Your task to perform on an android device: Open Android settings Image 0: 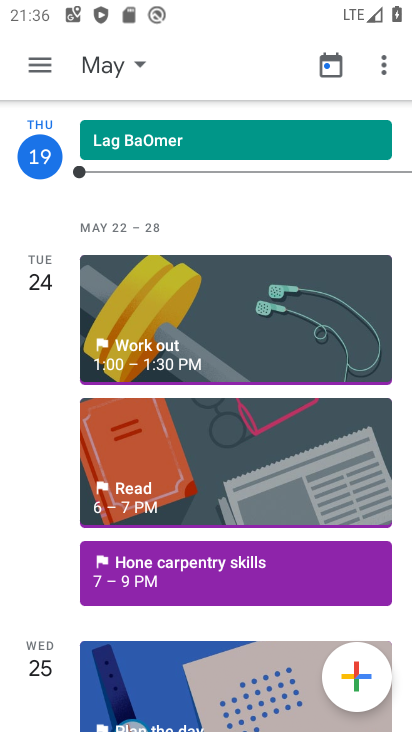
Step 0: press home button
Your task to perform on an android device: Open Android settings Image 1: 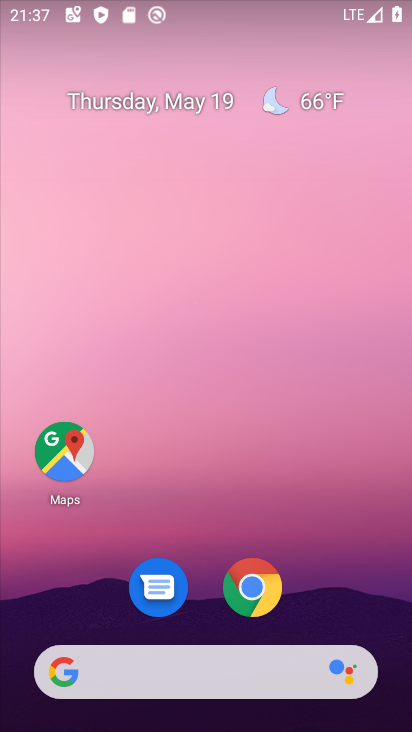
Step 1: drag from (299, 691) to (282, 165)
Your task to perform on an android device: Open Android settings Image 2: 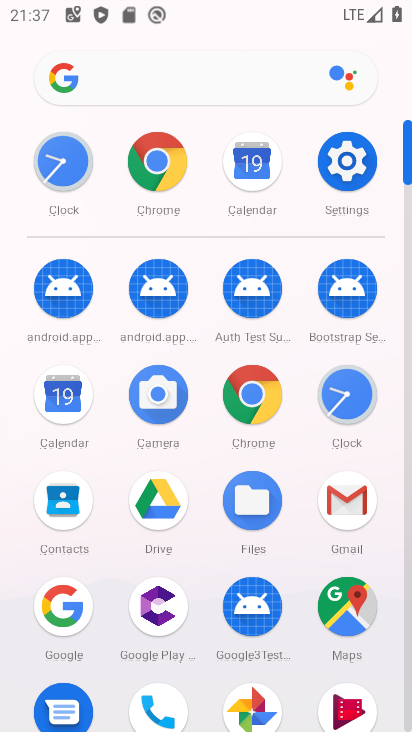
Step 2: click (334, 163)
Your task to perform on an android device: Open Android settings Image 3: 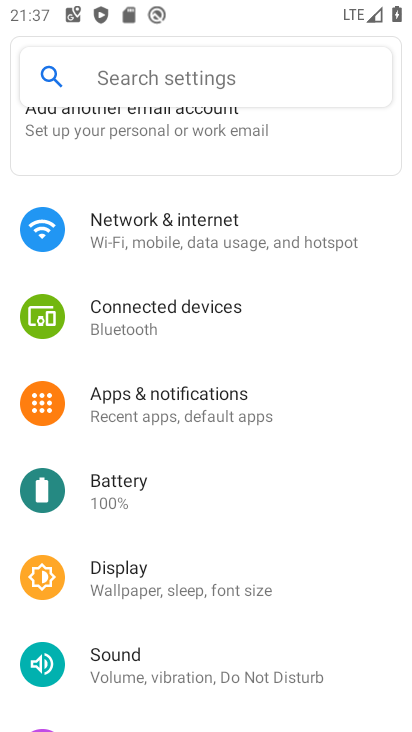
Step 3: click (176, 71)
Your task to perform on an android device: Open Android settings Image 4: 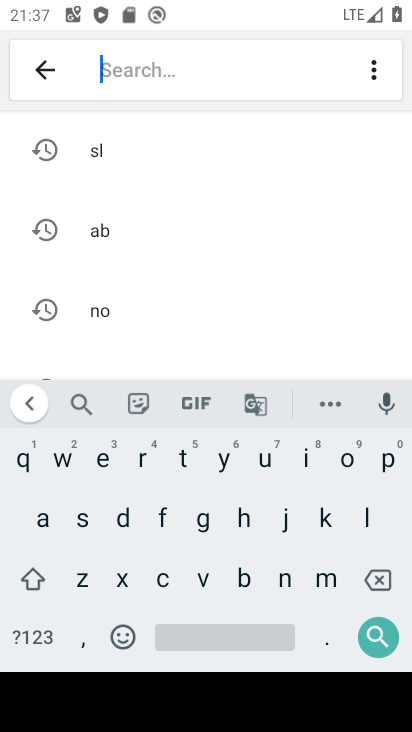
Step 4: click (45, 514)
Your task to perform on an android device: Open Android settings Image 5: 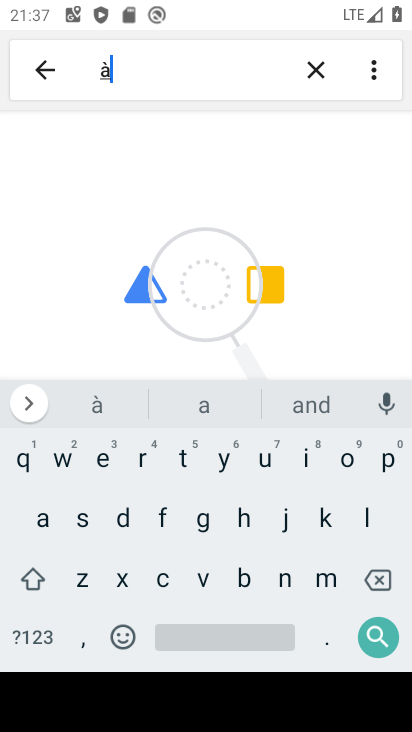
Step 5: click (393, 575)
Your task to perform on an android device: Open Android settings Image 6: 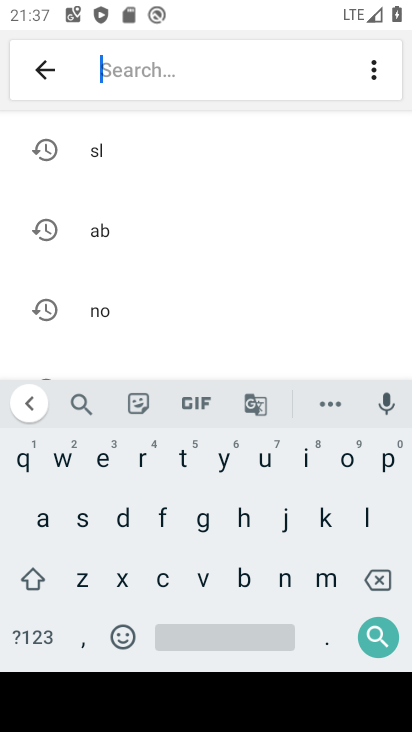
Step 6: click (39, 518)
Your task to perform on an android device: Open Android settings Image 7: 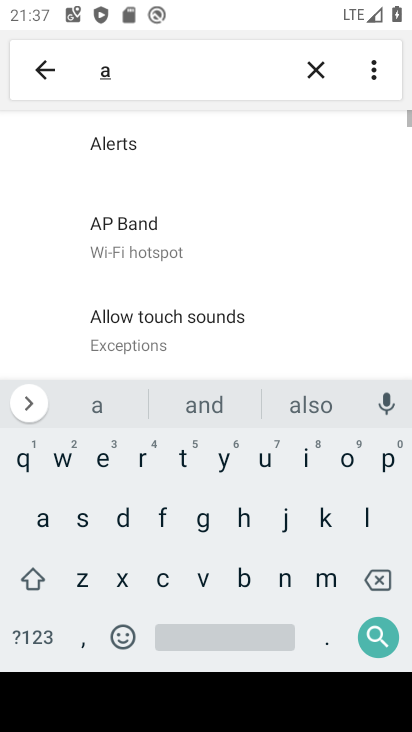
Step 7: click (284, 576)
Your task to perform on an android device: Open Android settings Image 8: 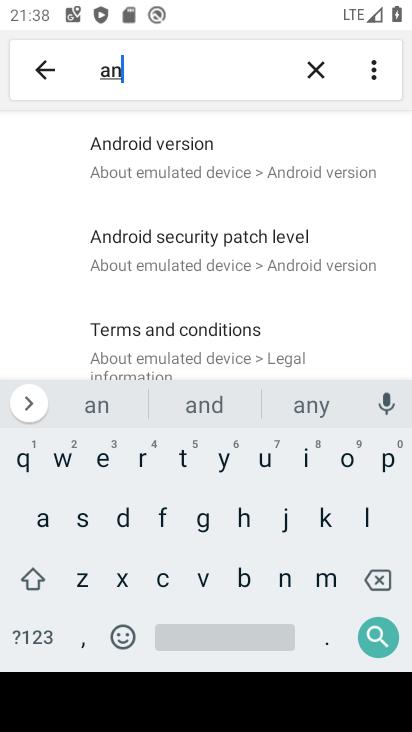
Step 8: click (222, 189)
Your task to perform on an android device: Open Android settings Image 9: 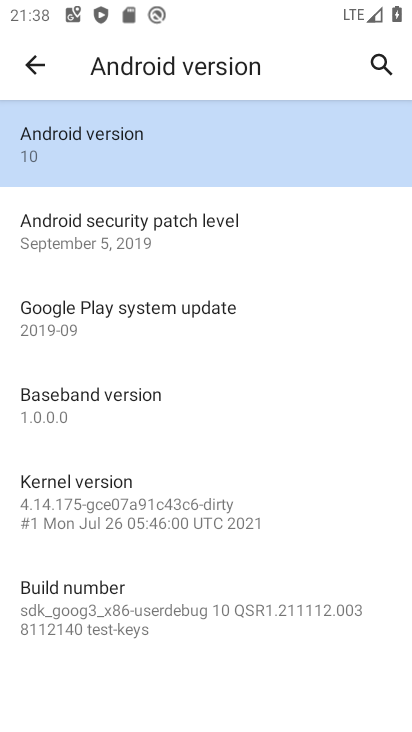
Step 9: press home button
Your task to perform on an android device: Open Android settings Image 10: 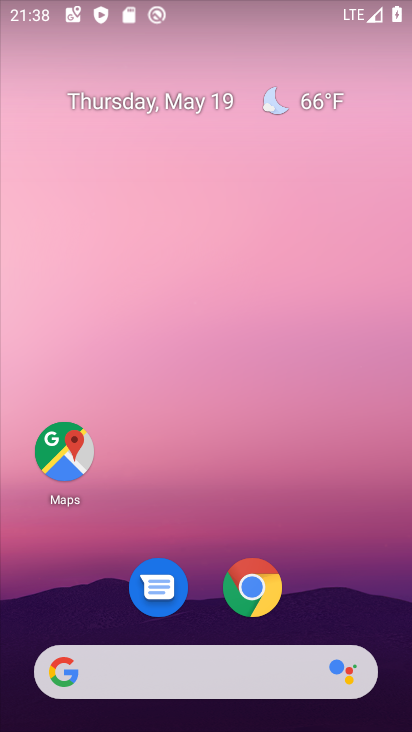
Step 10: drag from (279, 692) to (198, 242)
Your task to perform on an android device: Open Android settings Image 11: 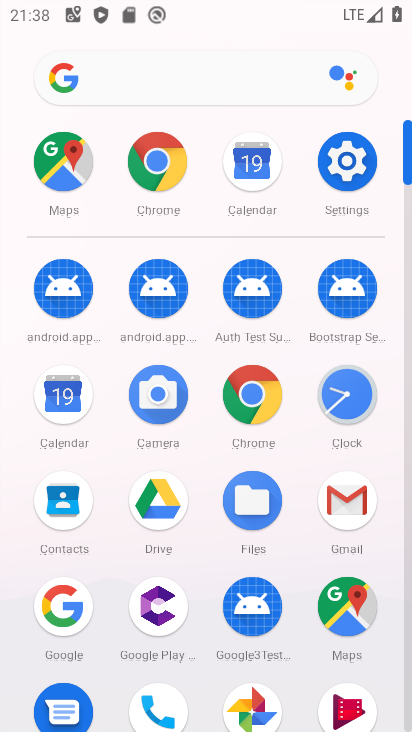
Step 11: click (372, 164)
Your task to perform on an android device: Open Android settings Image 12: 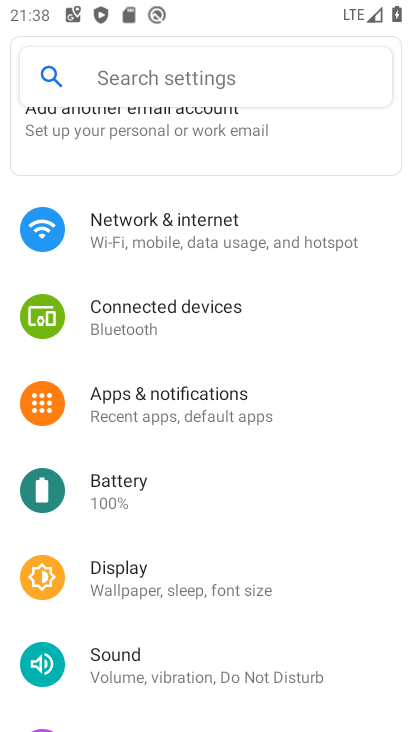
Step 12: click (111, 74)
Your task to perform on an android device: Open Android settings Image 13: 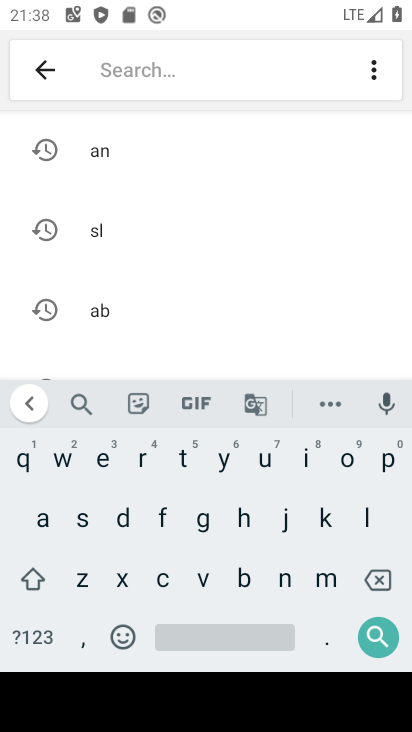
Step 13: click (41, 520)
Your task to perform on an android device: Open Android settings Image 14: 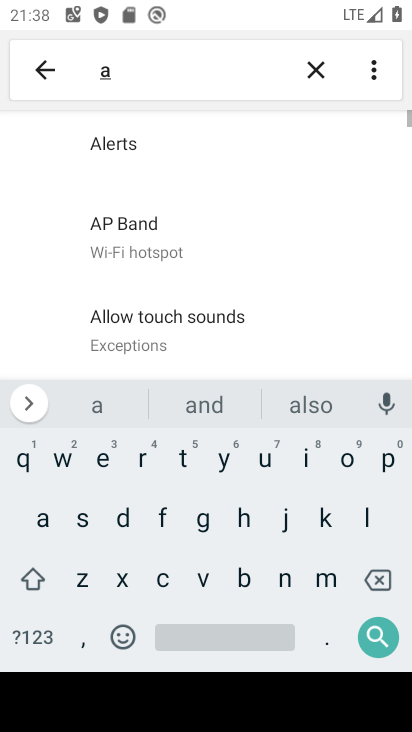
Step 14: click (281, 581)
Your task to perform on an android device: Open Android settings Image 15: 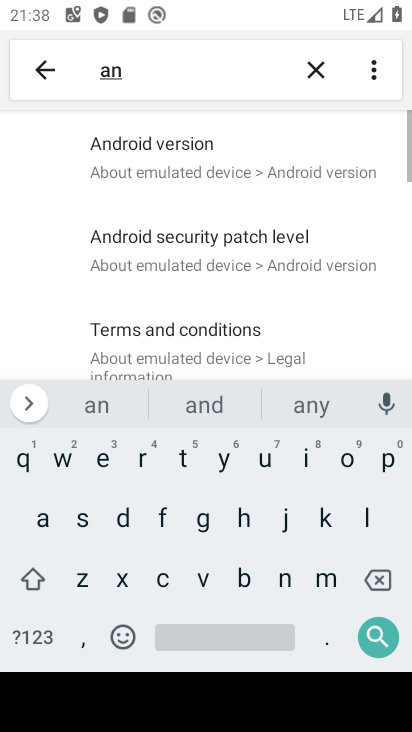
Step 15: click (209, 176)
Your task to perform on an android device: Open Android settings Image 16: 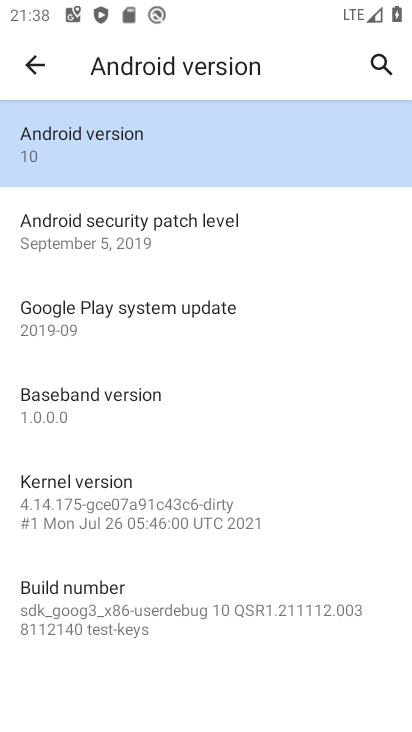
Step 16: click (209, 172)
Your task to perform on an android device: Open Android settings Image 17: 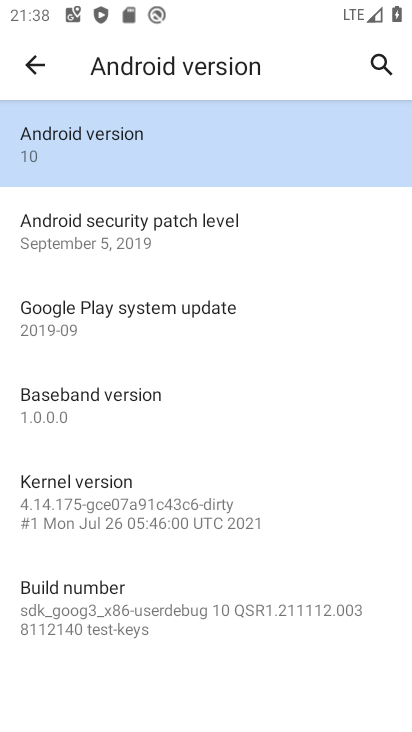
Step 17: task complete